Your task to perform on an android device: search for starred emails in the gmail app Image 0: 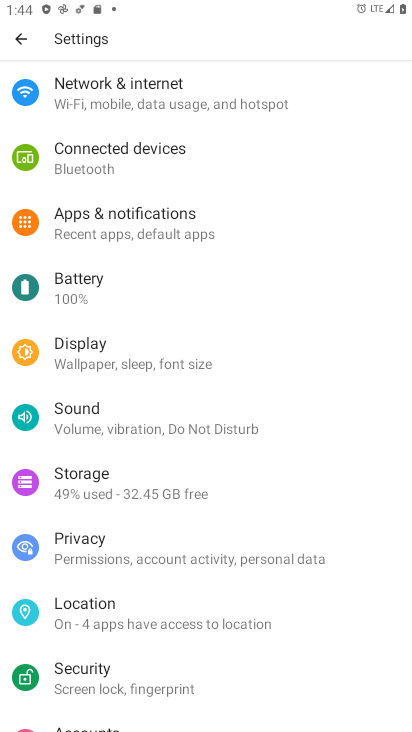
Step 0: press home button
Your task to perform on an android device: search for starred emails in the gmail app Image 1: 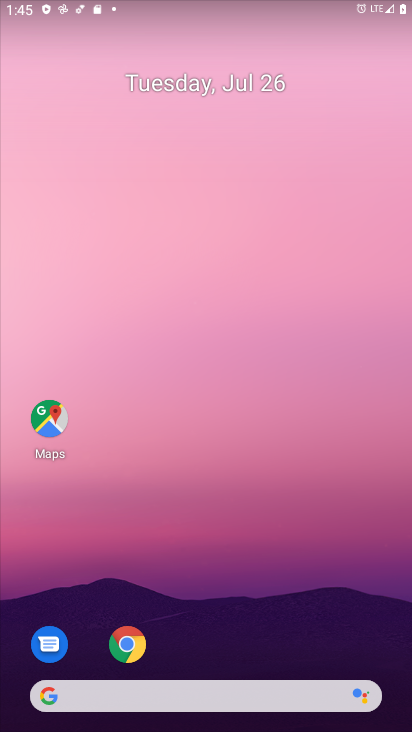
Step 1: drag from (37, 689) to (95, 145)
Your task to perform on an android device: search for starred emails in the gmail app Image 2: 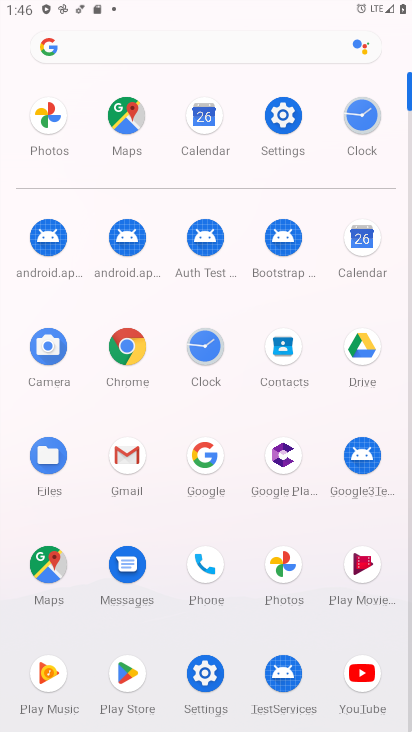
Step 2: click (111, 454)
Your task to perform on an android device: search for starred emails in the gmail app Image 3: 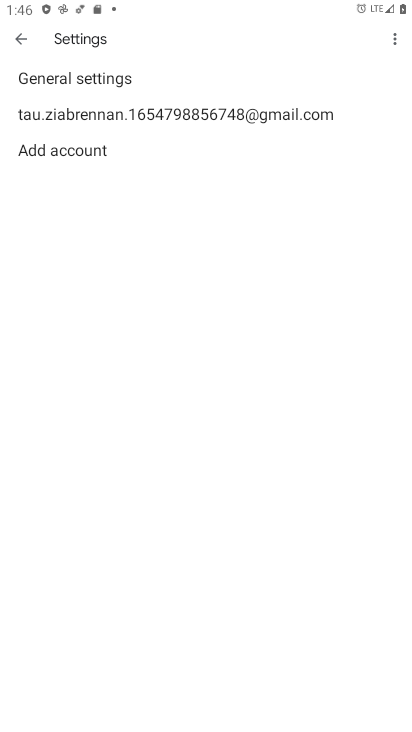
Step 3: click (195, 115)
Your task to perform on an android device: search for starred emails in the gmail app Image 4: 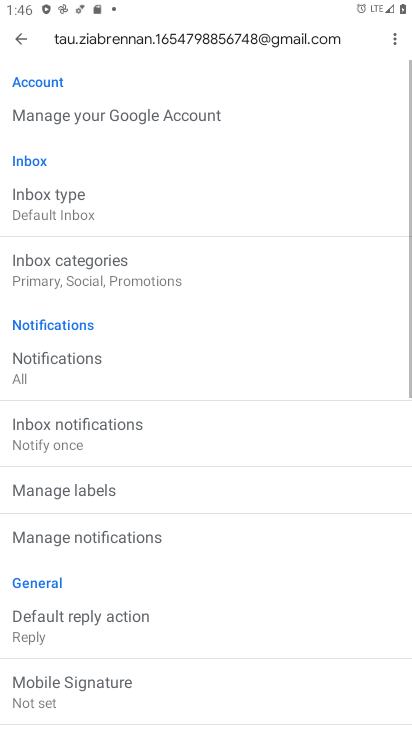
Step 4: click (18, 34)
Your task to perform on an android device: search for starred emails in the gmail app Image 5: 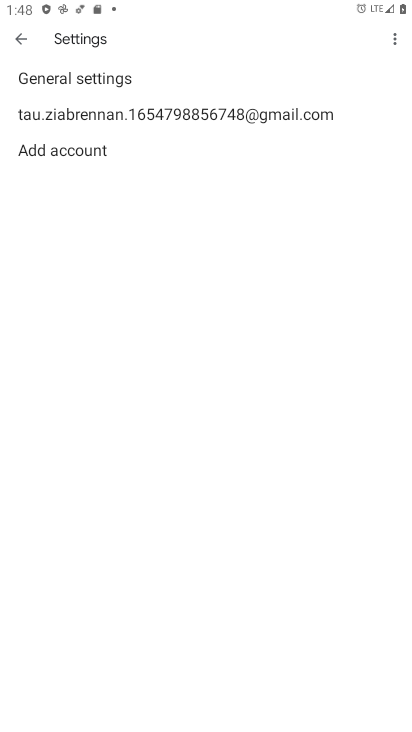
Step 5: click (18, 40)
Your task to perform on an android device: search for starred emails in the gmail app Image 6: 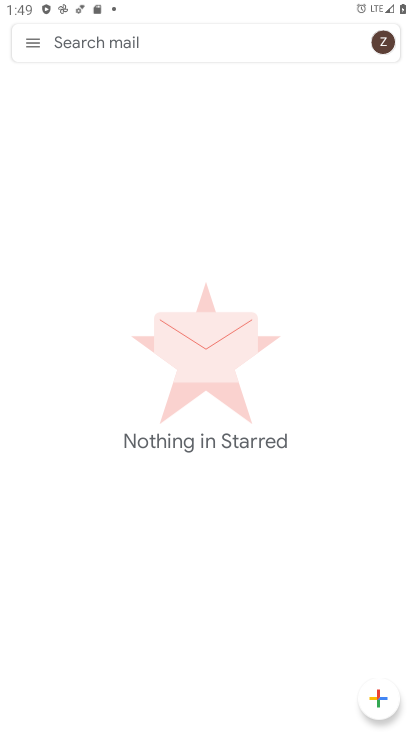
Step 6: click (29, 36)
Your task to perform on an android device: search for starred emails in the gmail app Image 7: 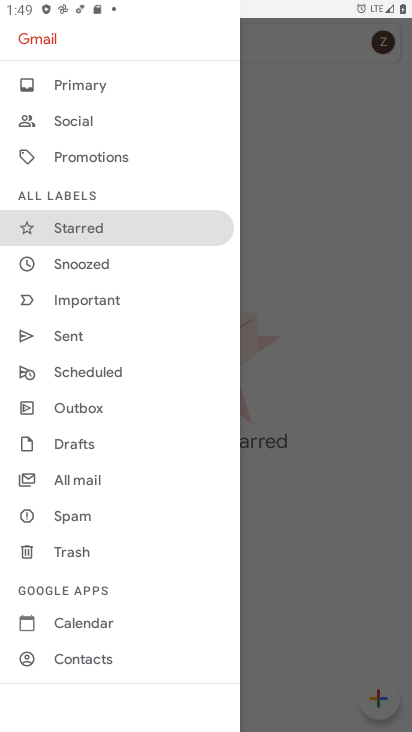
Step 7: click (151, 229)
Your task to perform on an android device: search for starred emails in the gmail app Image 8: 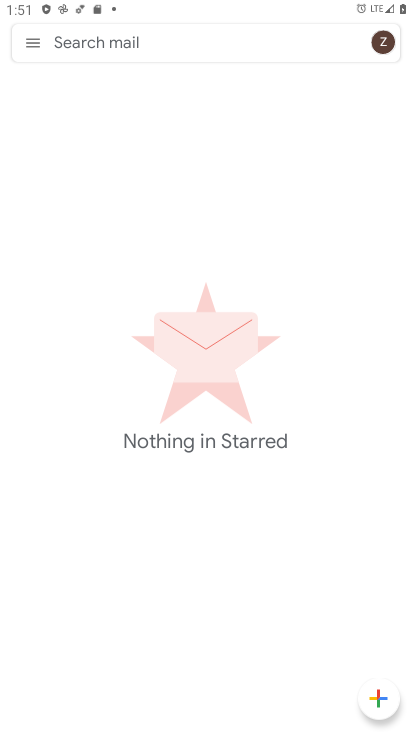
Step 8: task complete